Your task to perform on an android device: What's the weather? Image 0: 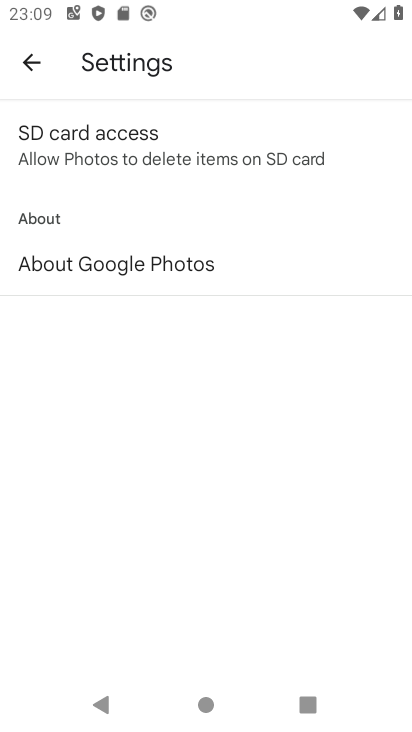
Step 0: press home button
Your task to perform on an android device: What's the weather? Image 1: 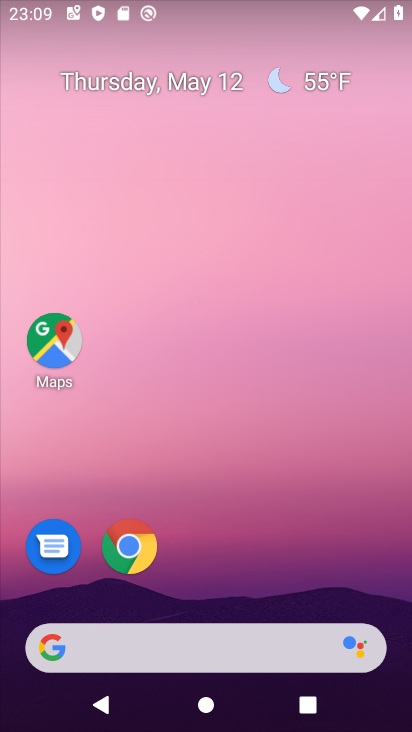
Step 1: click (132, 542)
Your task to perform on an android device: What's the weather? Image 2: 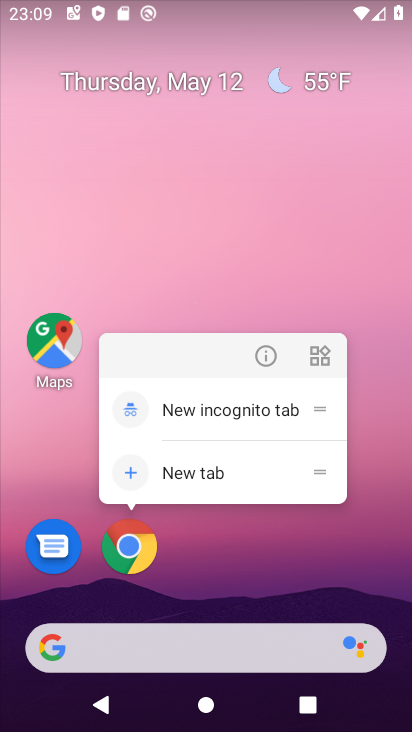
Step 2: click (261, 363)
Your task to perform on an android device: What's the weather? Image 3: 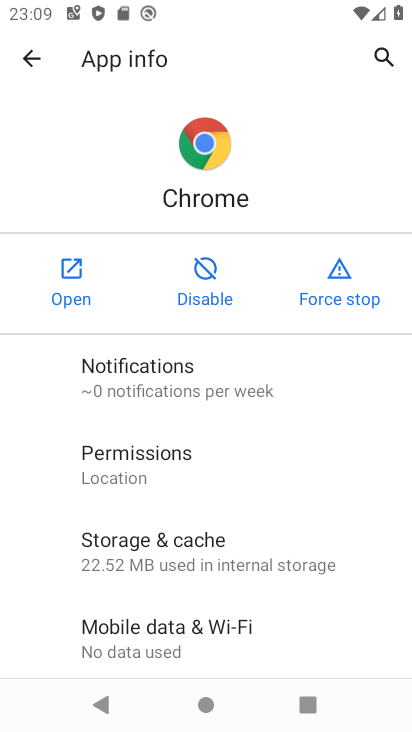
Step 3: click (54, 289)
Your task to perform on an android device: What's the weather? Image 4: 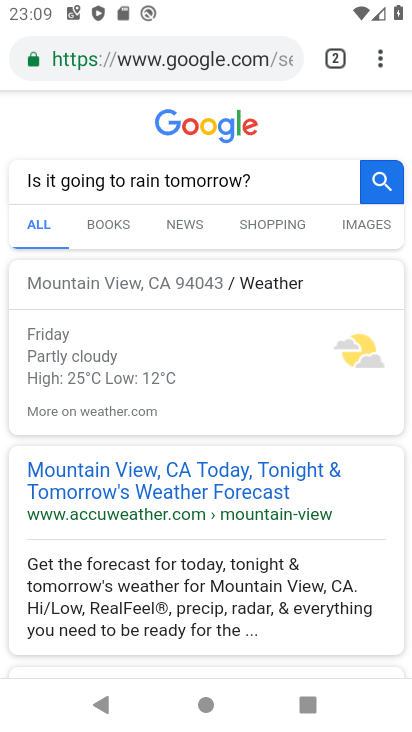
Step 4: click (182, 68)
Your task to perform on an android device: What's the weather? Image 5: 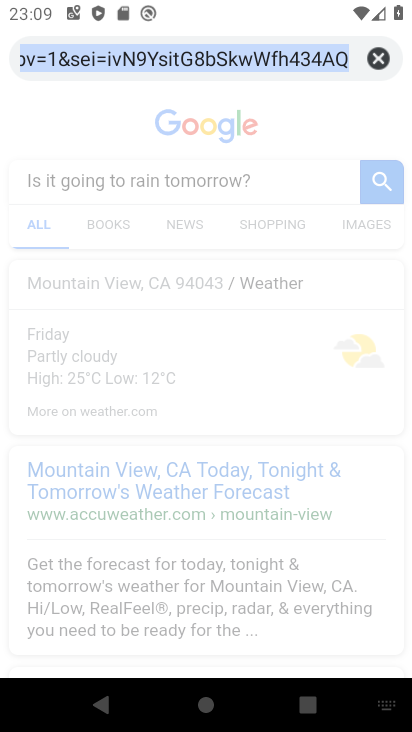
Step 5: type "weather"
Your task to perform on an android device: What's the weather? Image 6: 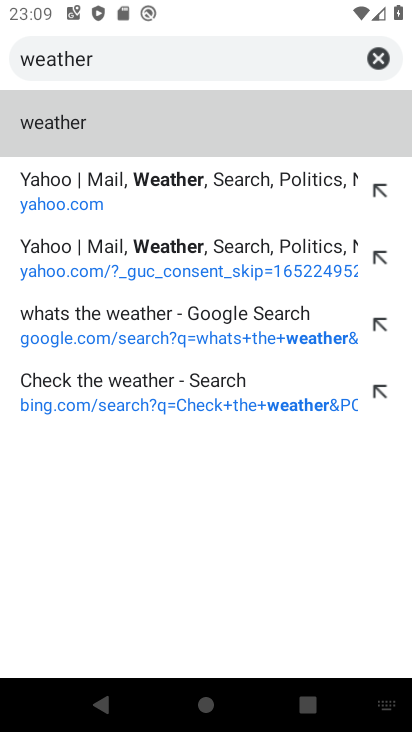
Step 6: click (103, 108)
Your task to perform on an android device: What's the weather? Image 7: 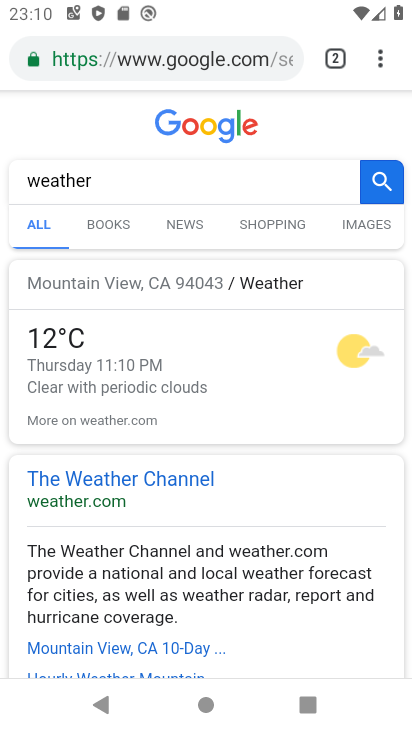
Step 7: task complete